Your task to perform on an android device: Search for seafood restaurants on Google Maps Image 0: 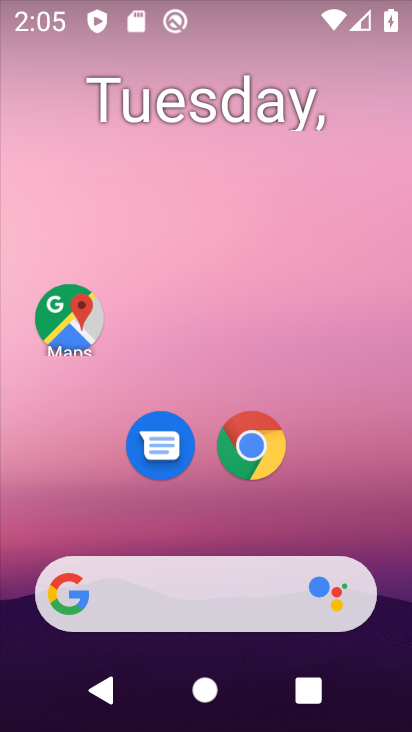
Step 0: click (63, 332)
Your task to perform on an android device: Search for seafood restaurants on Google Maps Image 1: 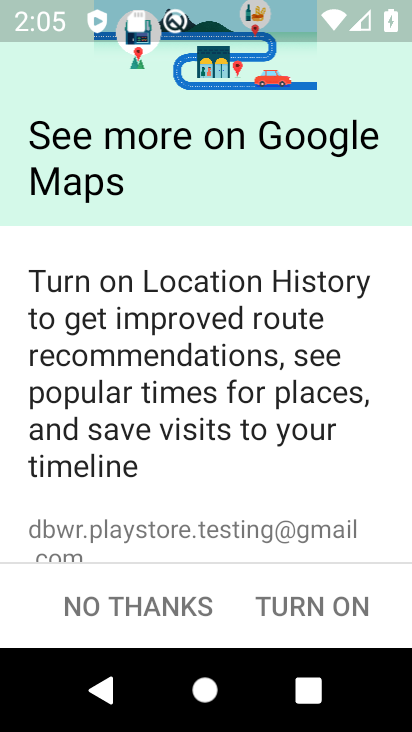
Step 1: click (340, 619)
Your task to perform on an android device: Search for seafood restaurants on Google Maps Image 2: 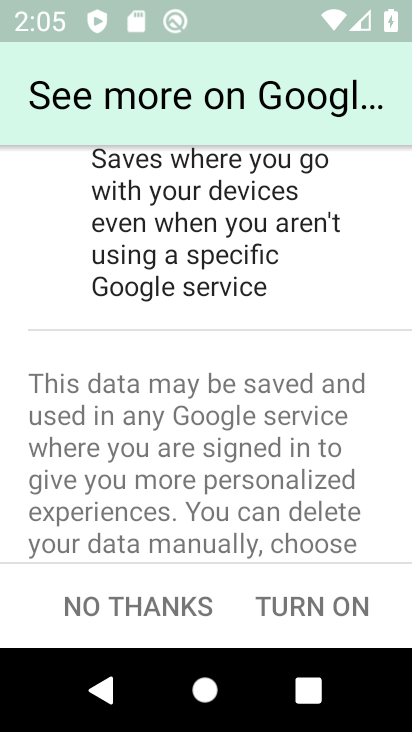
Step 2: click (362, 631)
Your task to perform on an android device: Search for seafood restaurants on Google Maps Image 3: 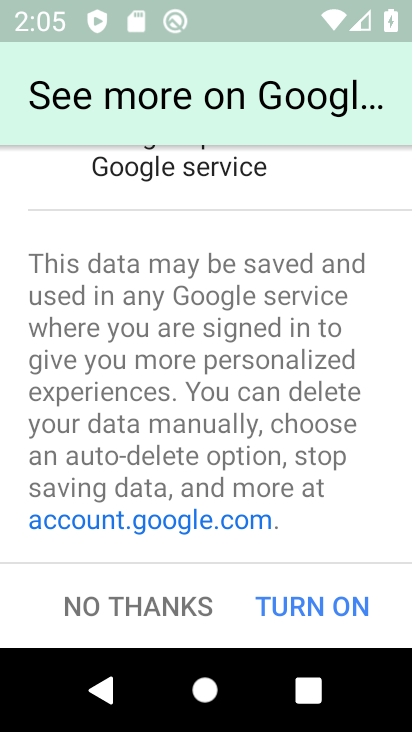
Step 3: click (362, 631)
Your task to perform on an android device: Search for seafood restaurants on Google Maps Image 4: 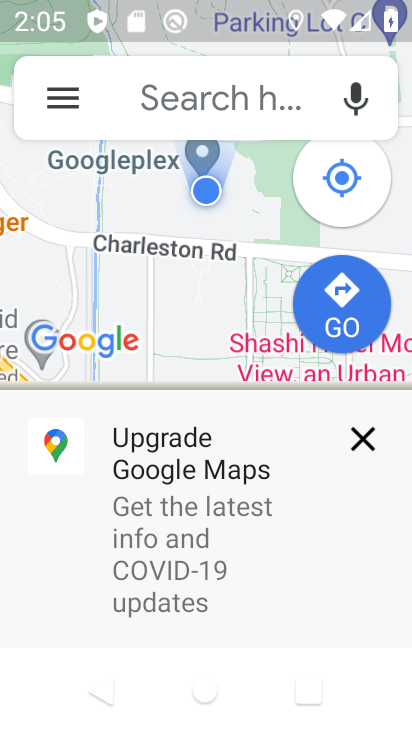
Step 4: click (169, 111)
Your task to perform on an android device: Search for seafood restaurants on Google Maps Image 5: 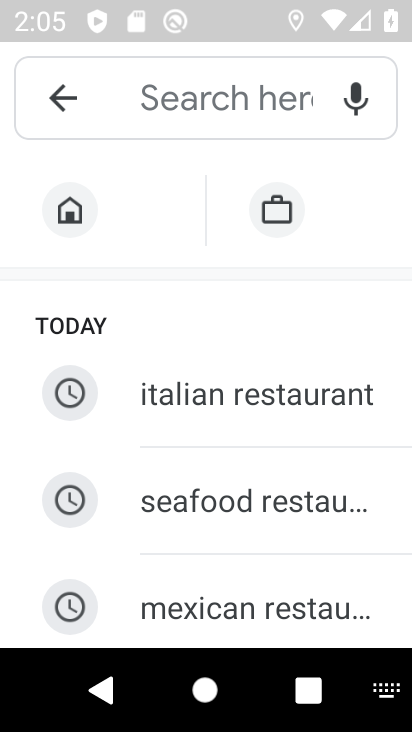
Step 5: click (178, 521)
Your task to perform on an android device: Search for seafood restaurants on Google Maps Image 6: 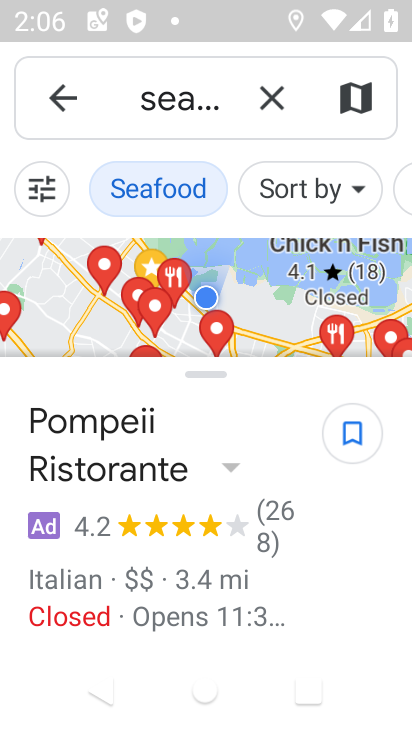
Step 6: task complete